Your task to perform on an android device: turn on javascript in the chrome app Image 0: 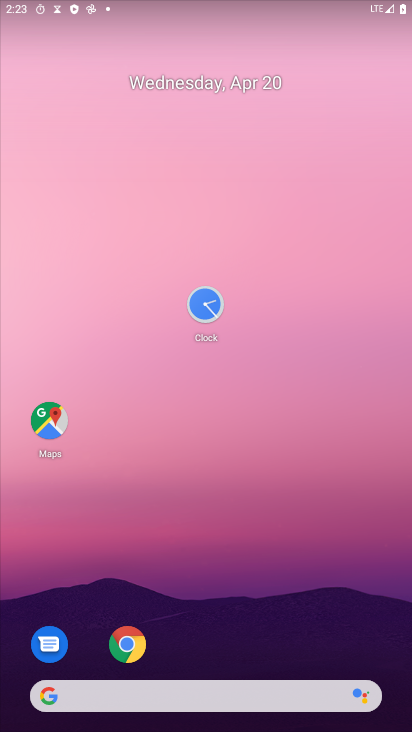
Step 0: drag from (274, 518) to (259, 92)
Your task to perform on an android device: turn on javascript in the chrome app Image 1: 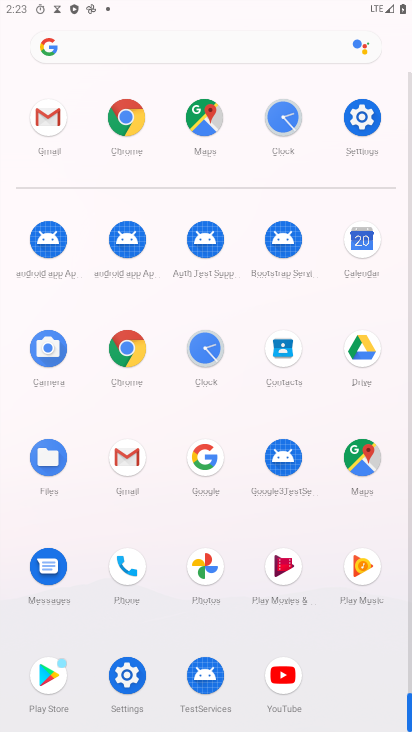
Step 1: click (132, 353)
Your task to perform on an android device: turn on javascript in the chrome app Image 2: 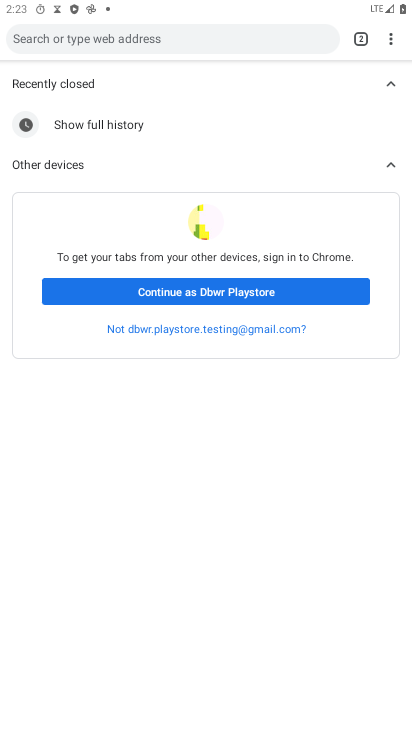
Step 2: click (393, 43)
Your task to perform on an android device: turn on javascript in the chrome app Image 3: 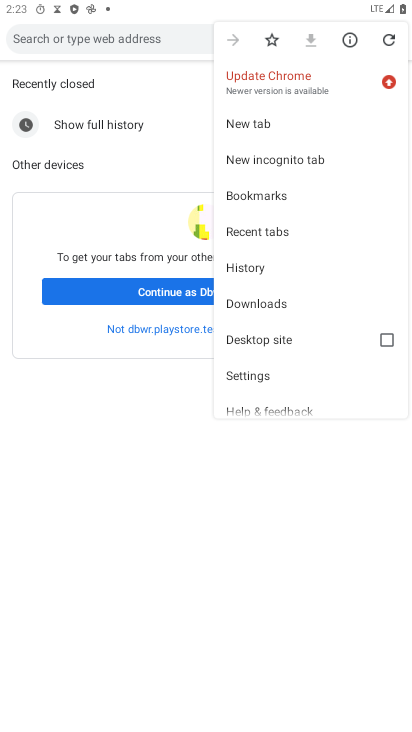
Step 3: click (264, 373)
Your task to perform on an android device: turn on javascript in the chrome app Image 4: 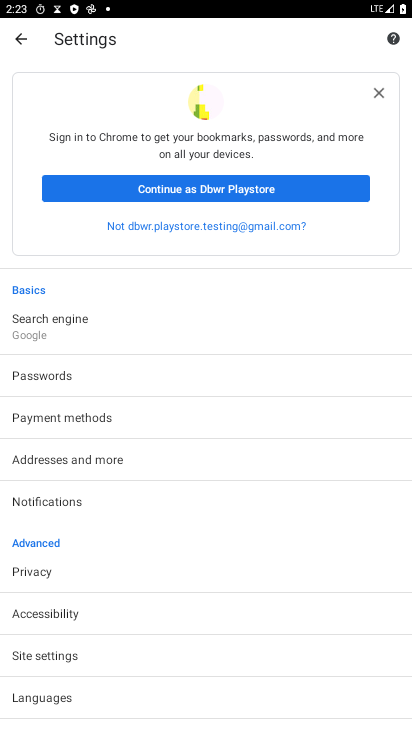
Step 4: click (66, 653)
Your task to perform on an android device: turn on javascript in the chrome app Image 5: 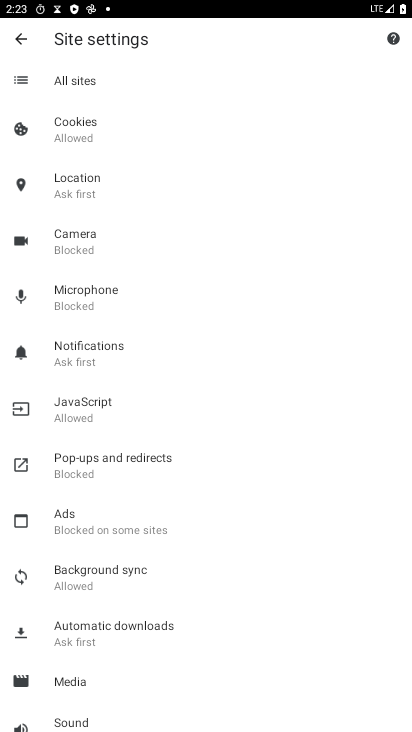
Step 5: click (83, 409)
Your task to perform on an android device: turn on javascript in the chrome app Image 6: 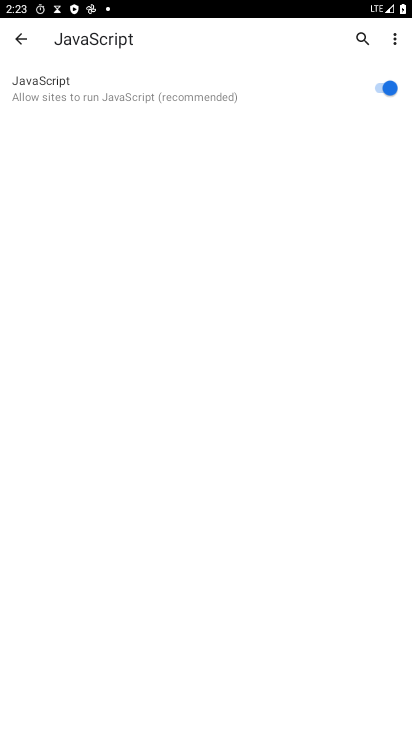
Step 6: task complete